Your task to perform on an android device: turn notification dots off Image 0: 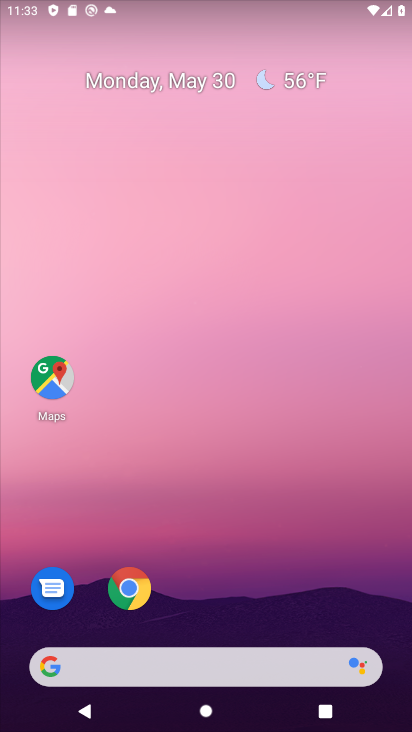
Step 0: drag from (219, 625) to (283, 100)
Your task to perform on an android device: turn notification dots off Image 1: 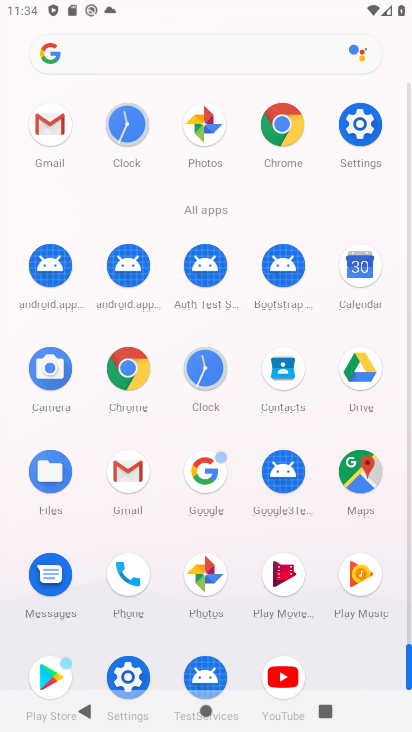
Step 1: click (357, 153)
Your task to perform on an android device: turn notification dots off Image 2: 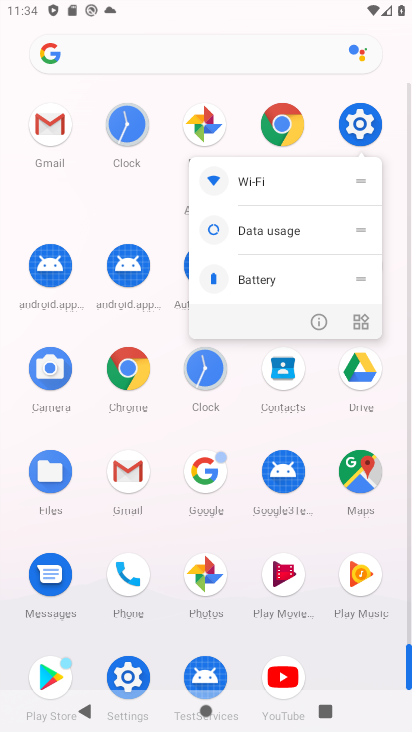
Step 2: click (363, 130)
Your task to perform on an android device: turn notification dots off Image 3: 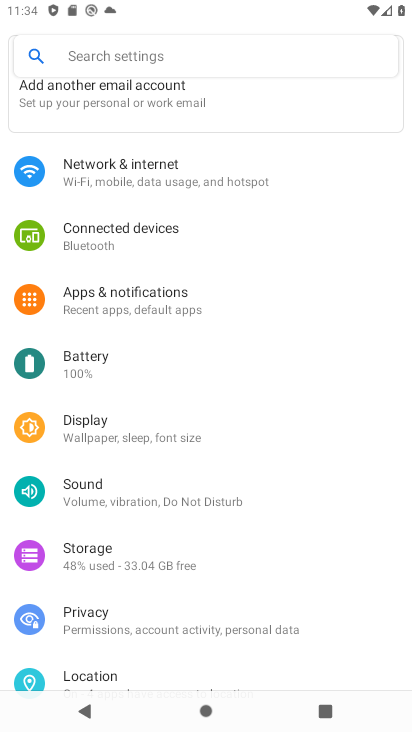
Step 3: click (169, 311)
Your task to perform on an android device: turn notification dots off Image 4: 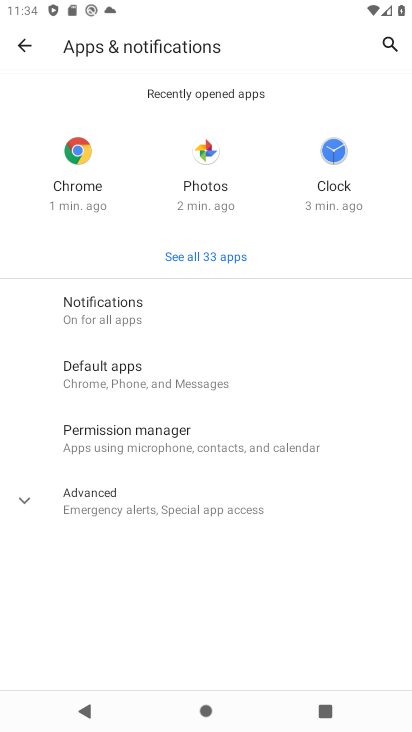
Step 4: click (115, 314)
Your task to perform on an android device: turn notification dots off Image 5: 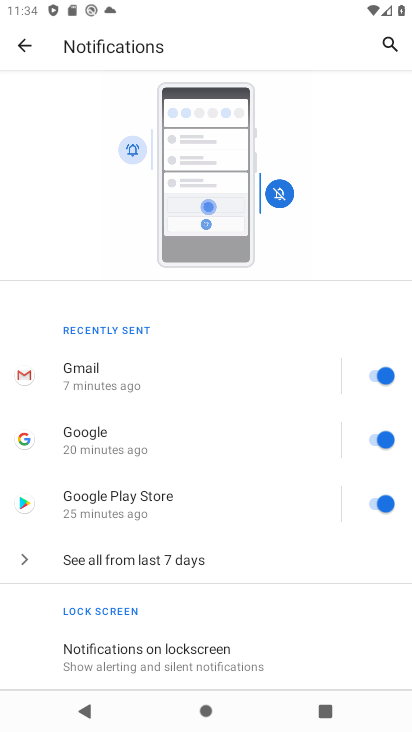
Step 5: drag from (136, 631) to (213, 244)
Your task to perform on an android device: turn notification dots off Image 6: 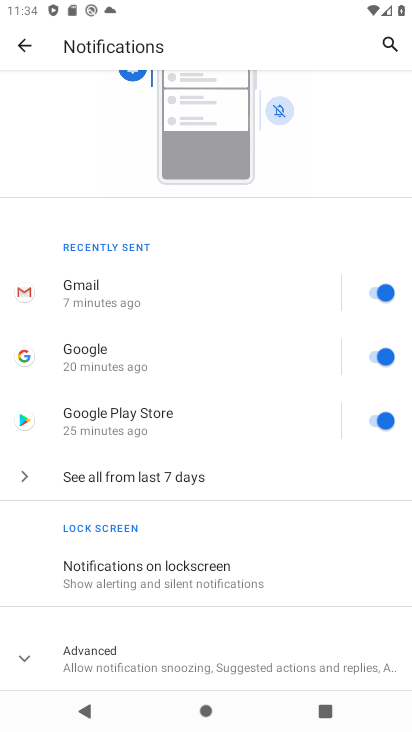
Step 6: click (121, 666)
Your task to perform on an android device: turn notification dots off Image 7: 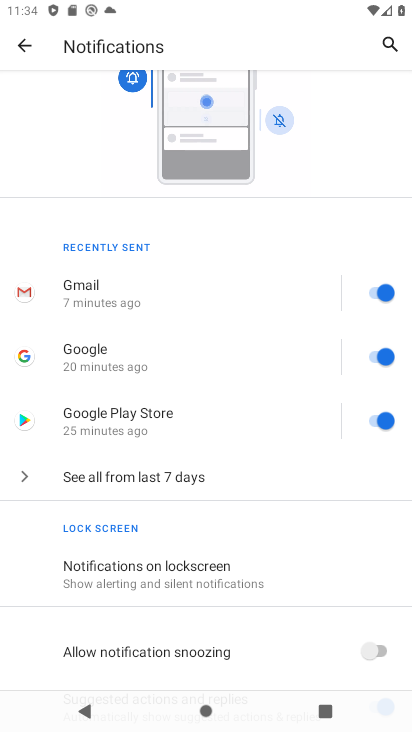
Step 7: drag from (175, 652) to (237, 385)
Your task to perform on an android device: turn notification dots off Image 8: 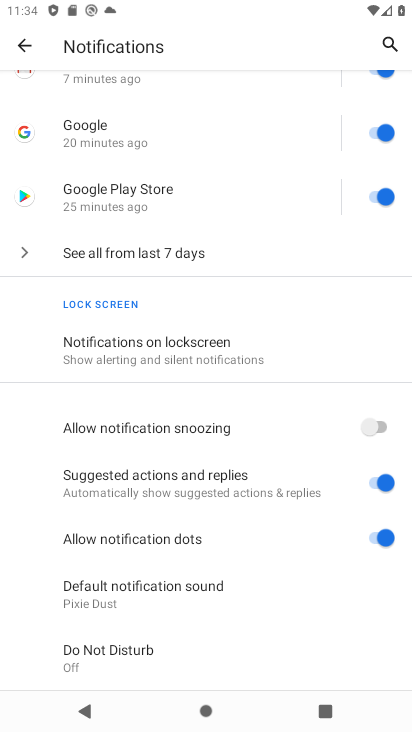
Step 8: click (374, 538)
Your task to perform on an android device: turn notification dots off Image 9: 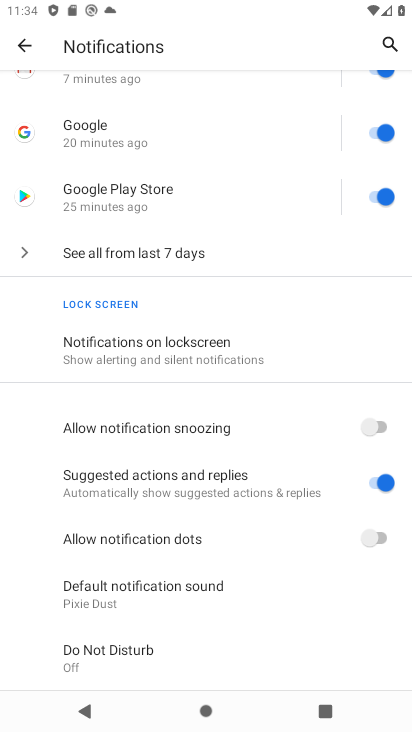
Step 9: task complete